Your task to perform on an android device: Open the calendar and show me this week's events? Image 0: 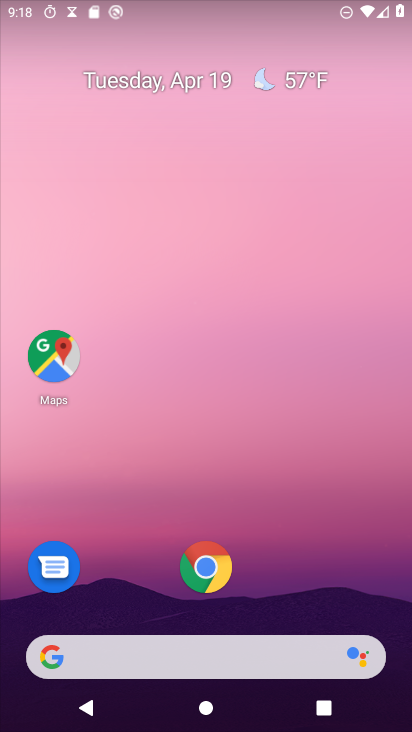
Step 0: drag from (300, 529) to (316, 26)
Your task to perform on an android device: Open the calendar and show me this week's events? Image 1: 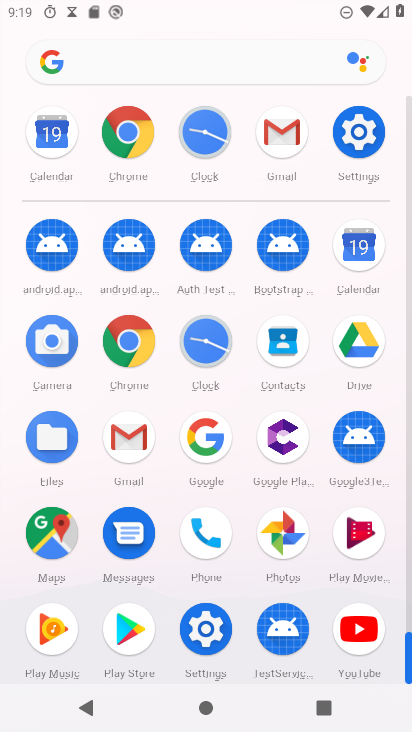
Step 1: click (363, 242)
Your task to perform on an android device: Open the calendar and show me this week's events? Image 2: 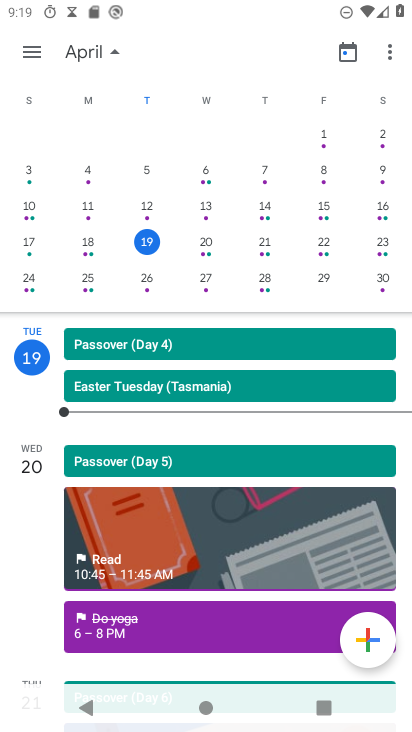
Step 2: click (202, 245)
Your task to perform on an android device: Open the calendar and show me this week's events? Image 3: 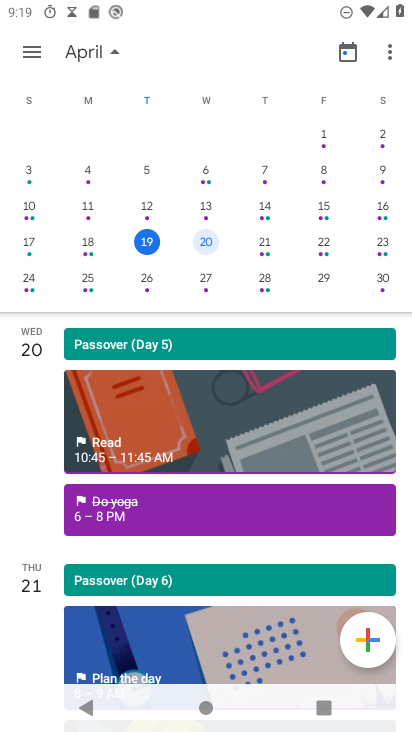
Step 3: task complete